Your task to perform on an android device: set the stopwatch Image 0: 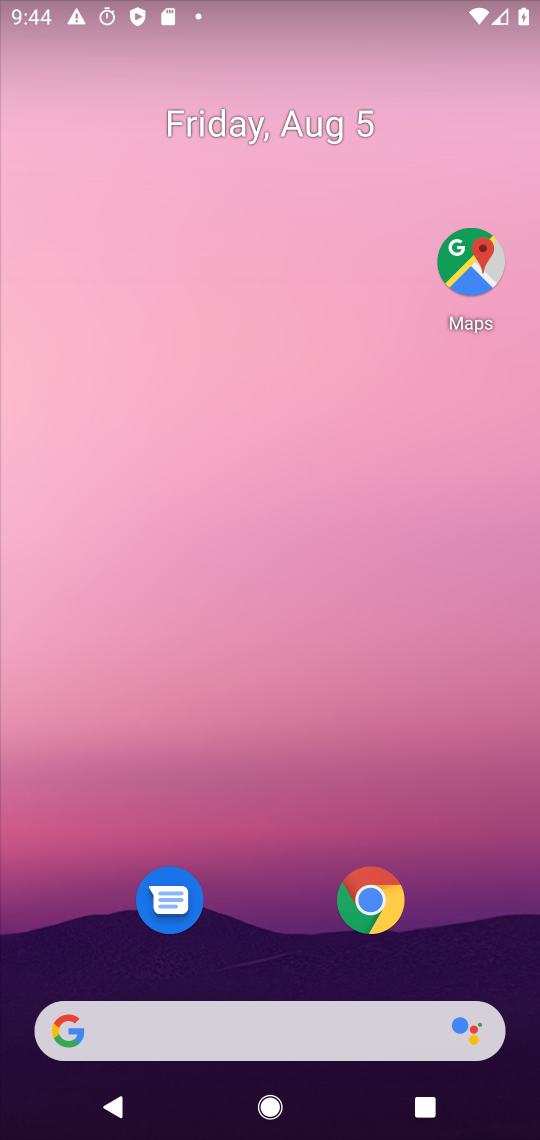
Step 0: click (257, 186)
Your task to perform on an android device: set the stopwatch Image 1: 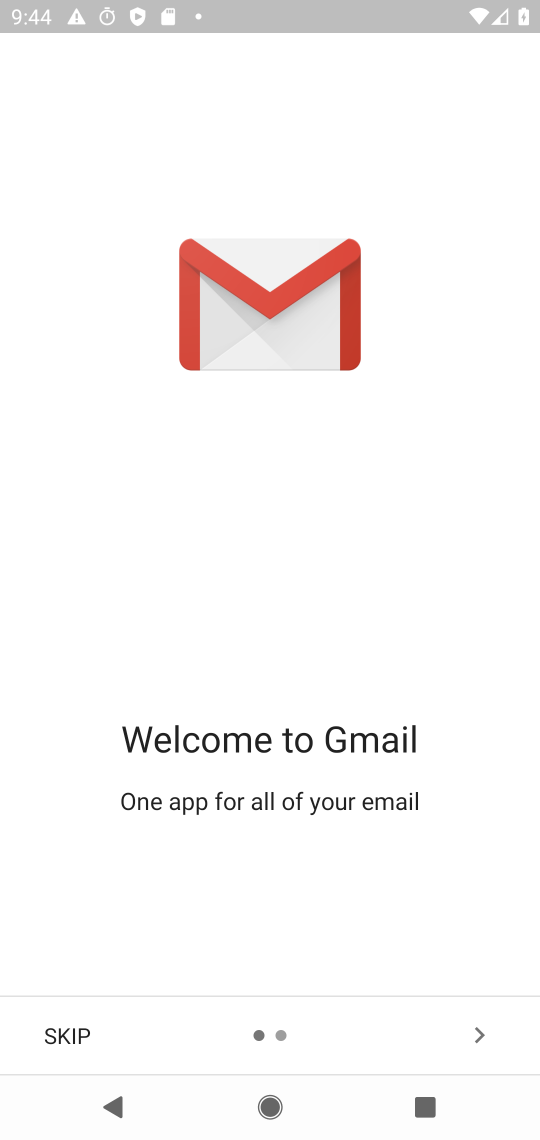
Step 1: press home button
Your task to perform on an android device: set the stopwatch Image 2: 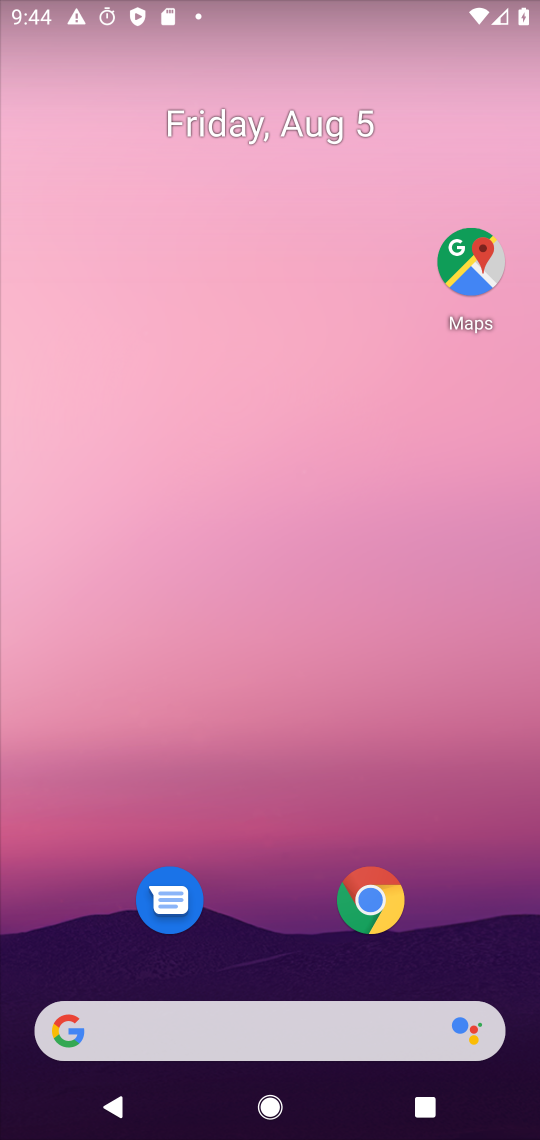
Step 2: drag from (237, 247) to (225, 144)
Your task to perform on an android device: set the stopwatch Image 3: 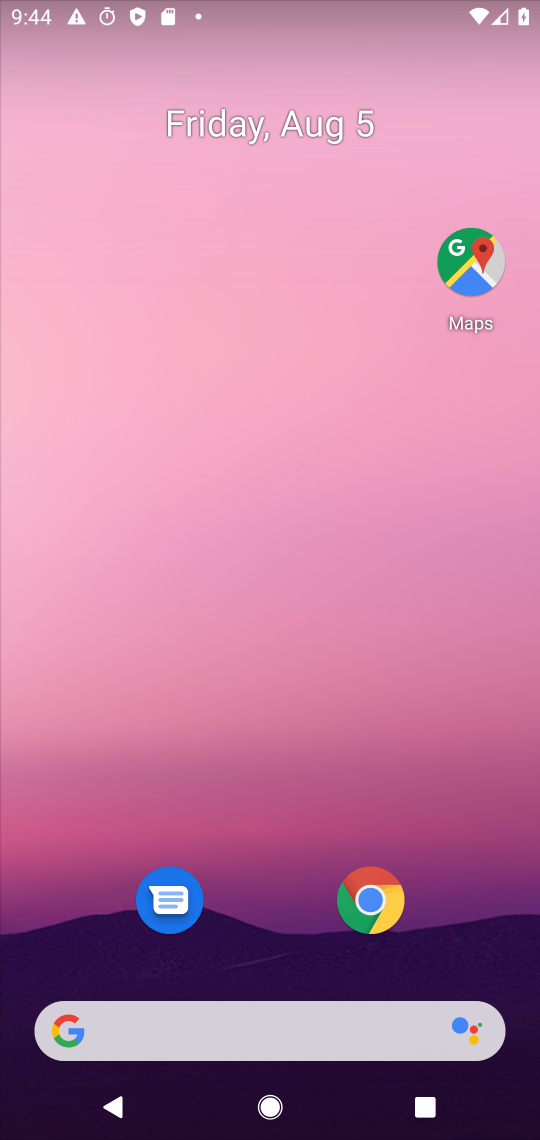
Step 3: drag from (287, 957) to (176, 260)
Your task to perform on an android device: set the stopwatch Image 4: 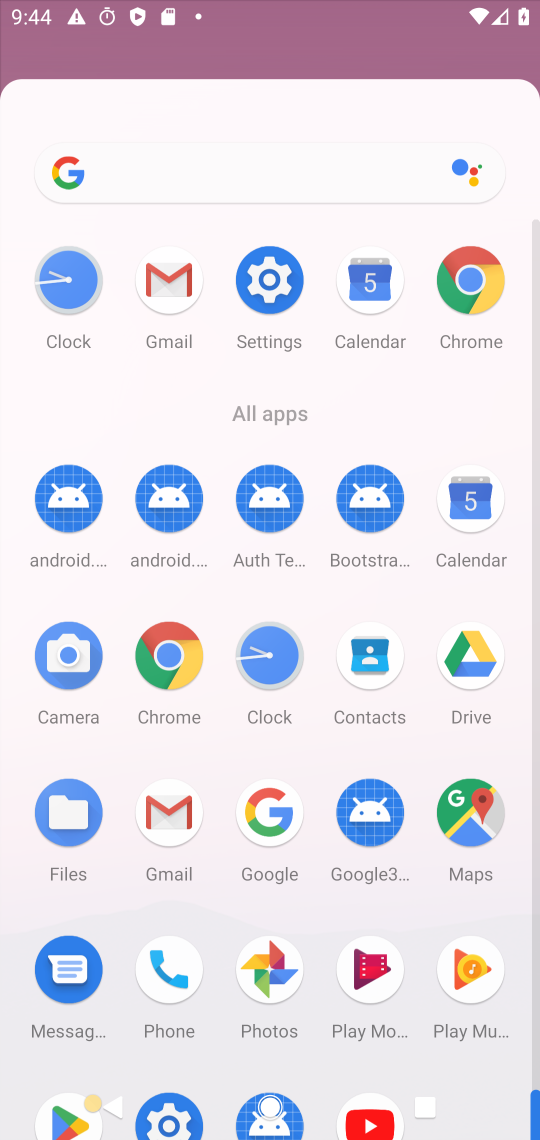
Step 4: drag from (285, 977) to (283, 319)
Your task to perform on an android device: set the stopwatch Image 5: 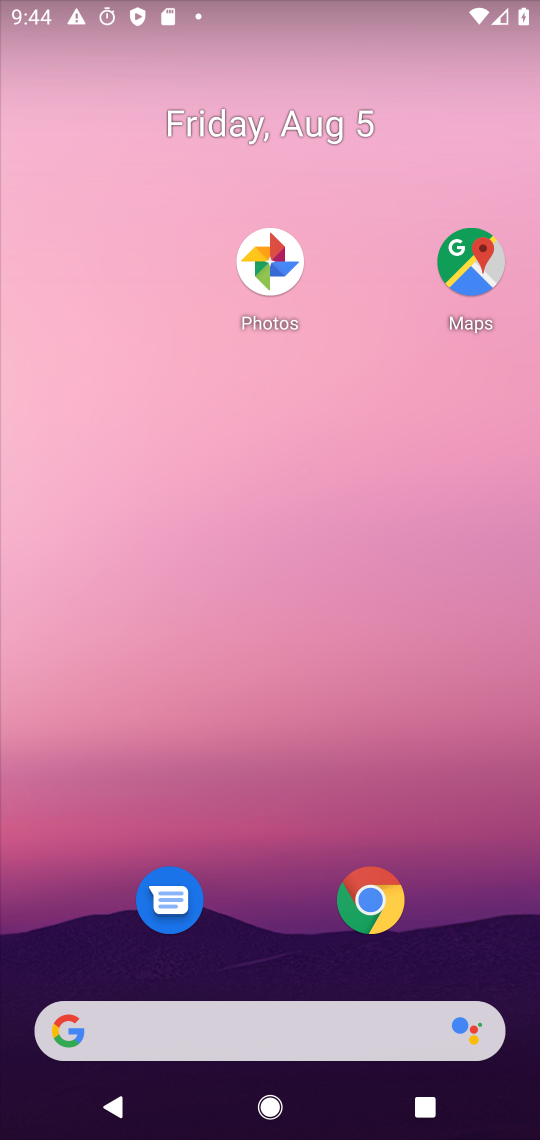
Step 5: drag from (293, 973) to (245, 312)
Your task to perform on an android device: set the stopwatch Image 6: 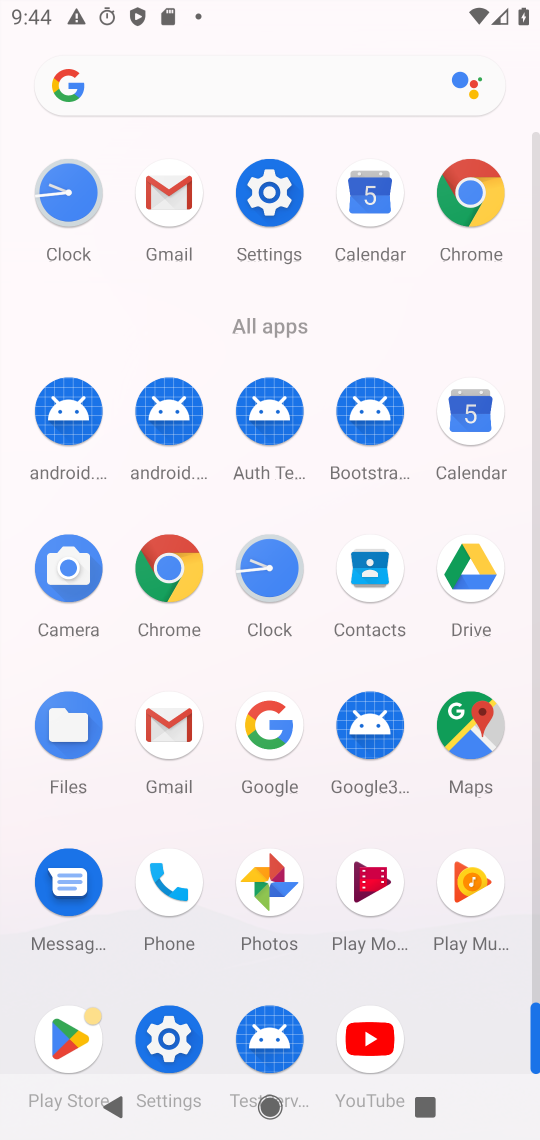
Step 6: click (59, 206)
Your task to perform on an android device: set the stopwatch Image 7: 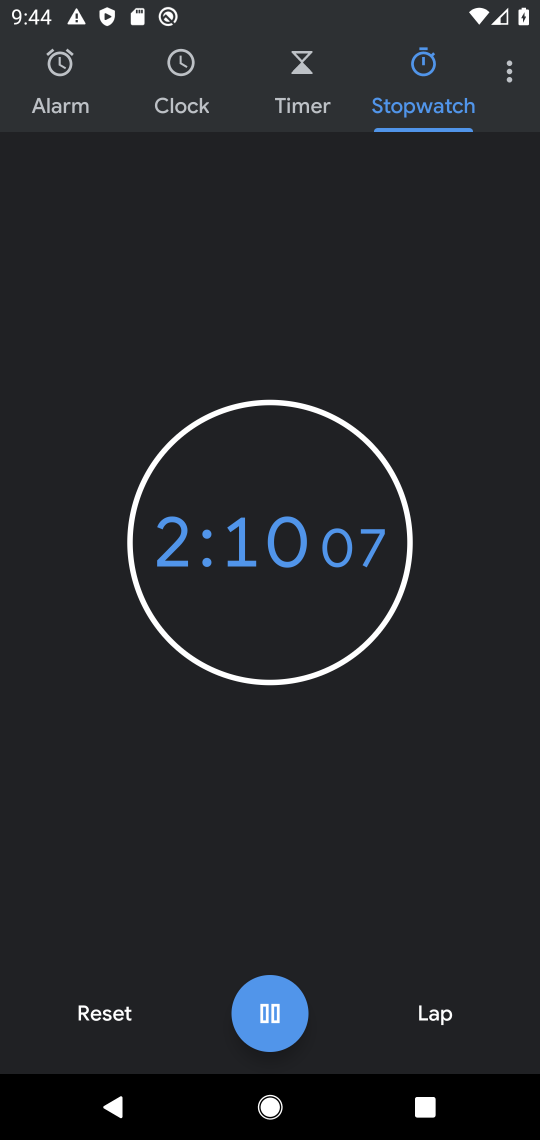
Step 7: task complete